Your task to perform on an android device: View the shopping cart on costco. Add macbook pro 13 inch to the cart on costco Image 0: 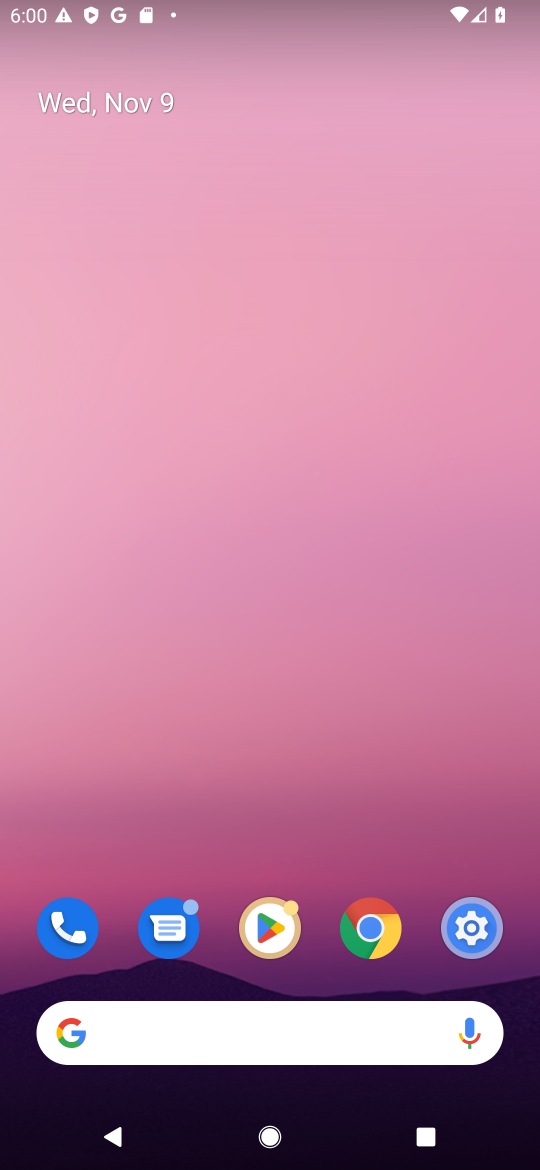
Step 0: click (365, 936)
Your task to perform on an android device: View the shopping cart on costco. Add macbook pro 13 inch to the cart on costco Image 1: 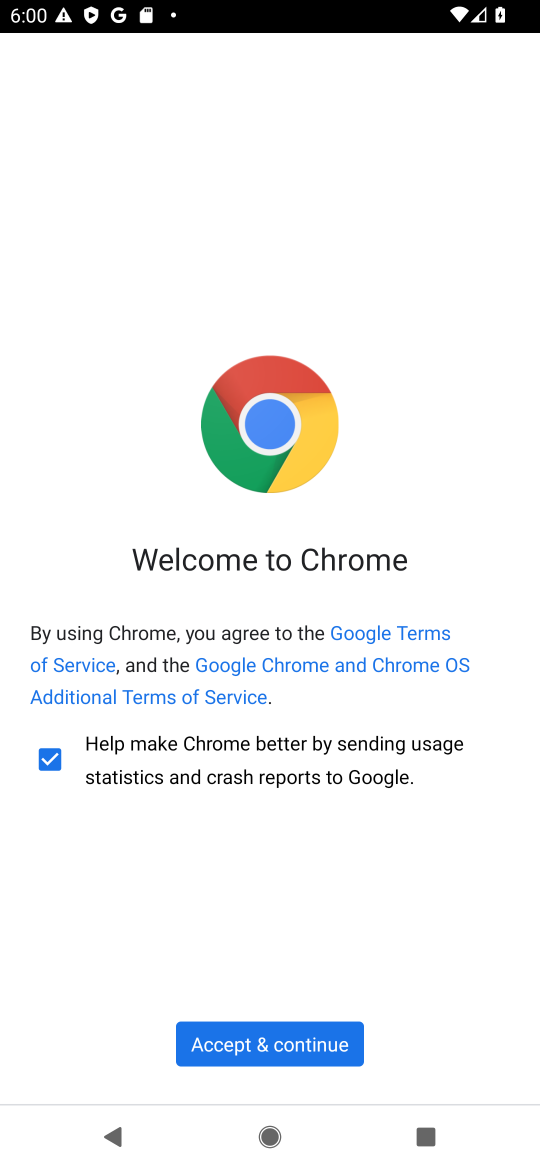
Step 1: click (281, 1060)
Your task to perform on an android device: View the shopping cart on costco. Add macbook pro 13 inch to the cart on costco Image 2: 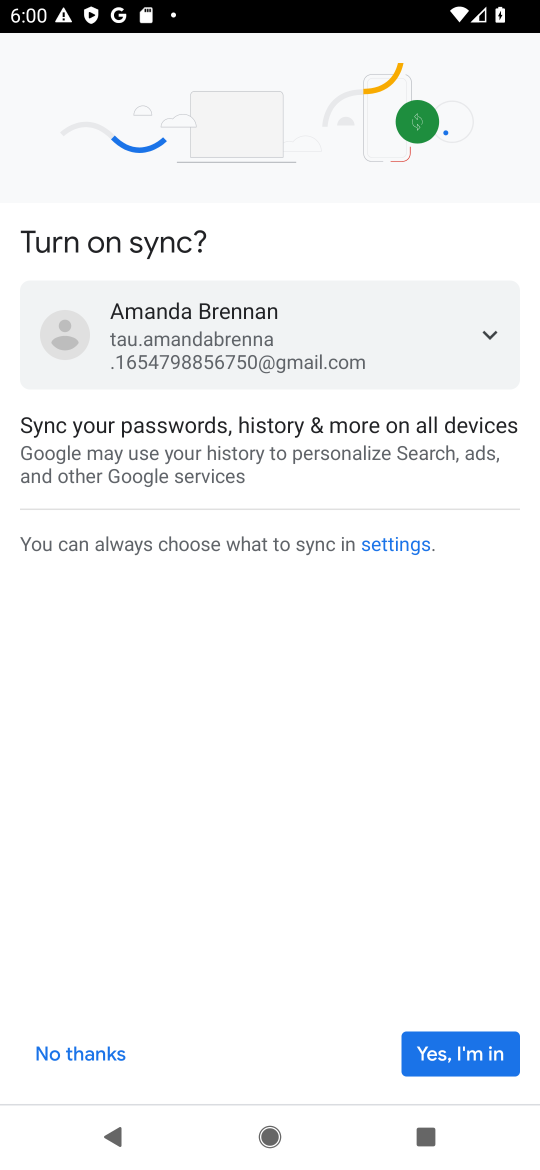
Step 2: click (433, 1043)
Your task to perform on an android device: View the shopping cart on costco. Add macbook pro 13 inch to the cart on costco Image 3: 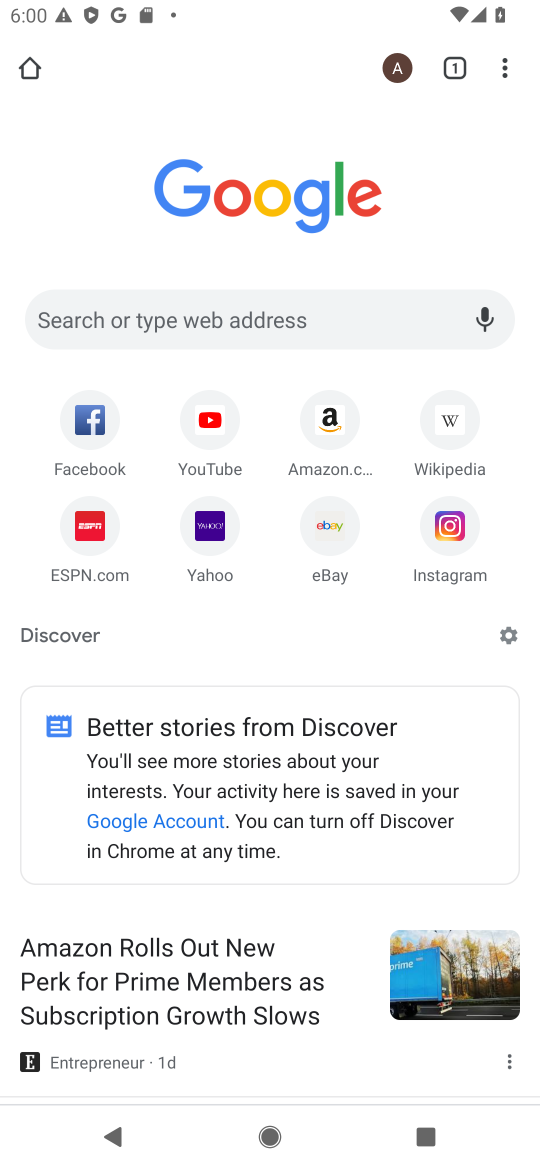
Step 3: click (127, 312)
Your task to perform on an android device: View the shopping cart on costco. Add macbook pro 13 inch to the cart on costco Image 4: 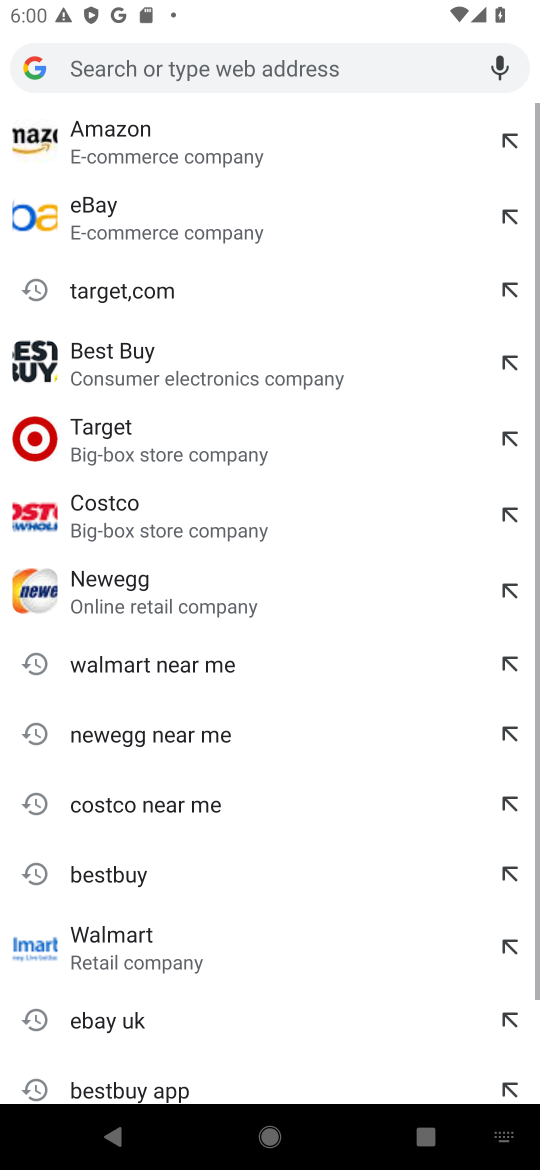
Step 4: click (117, 508)
Your task to perform on an android device: View the shopping cart on costco. Add macbook pro 13 inch to the cart on costco Image 5: 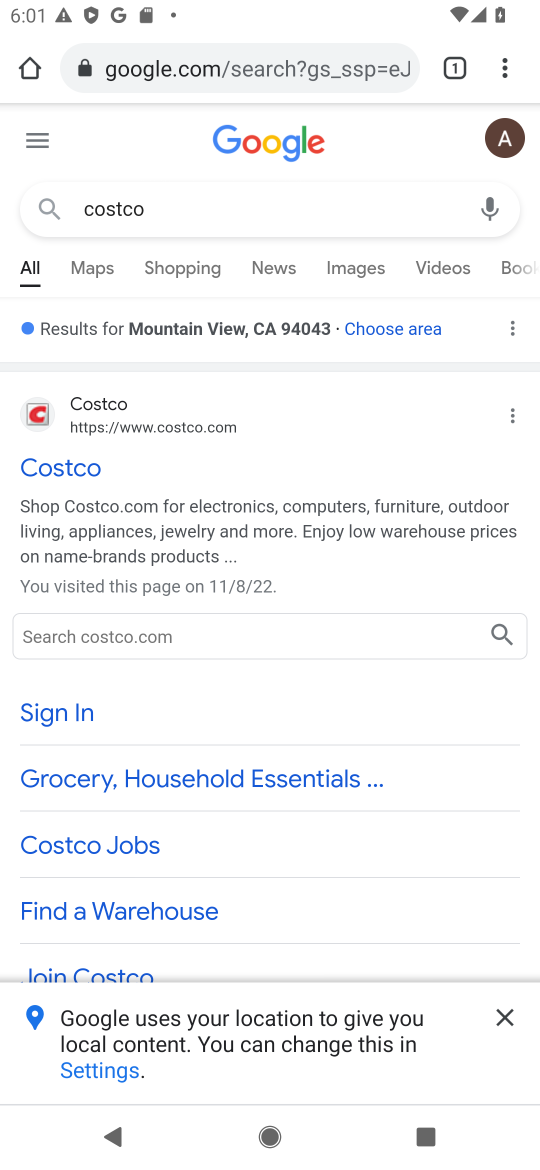
Step 5: click (156, 631)
Your task to perform on an android device: View the shopping cart on costco. Add macbook pro 13 inch to the cart on costco Image 6: 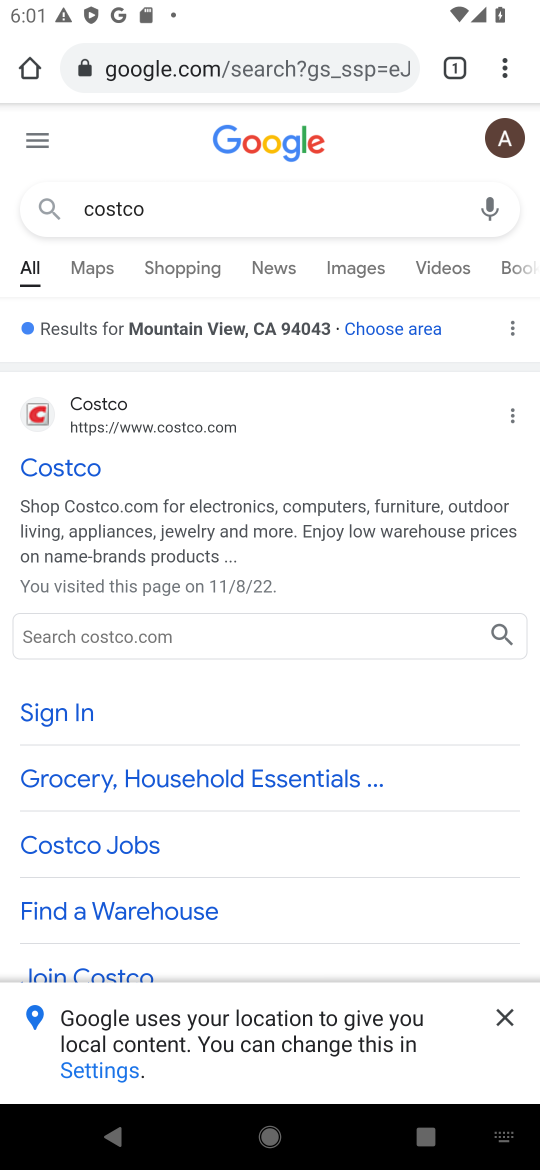
Step 6: type "macbook pro 13"
Your task to perform on an android device: View the shopping cart on costco. Add macbook pro 13 inch to the cart on costco Image 7: 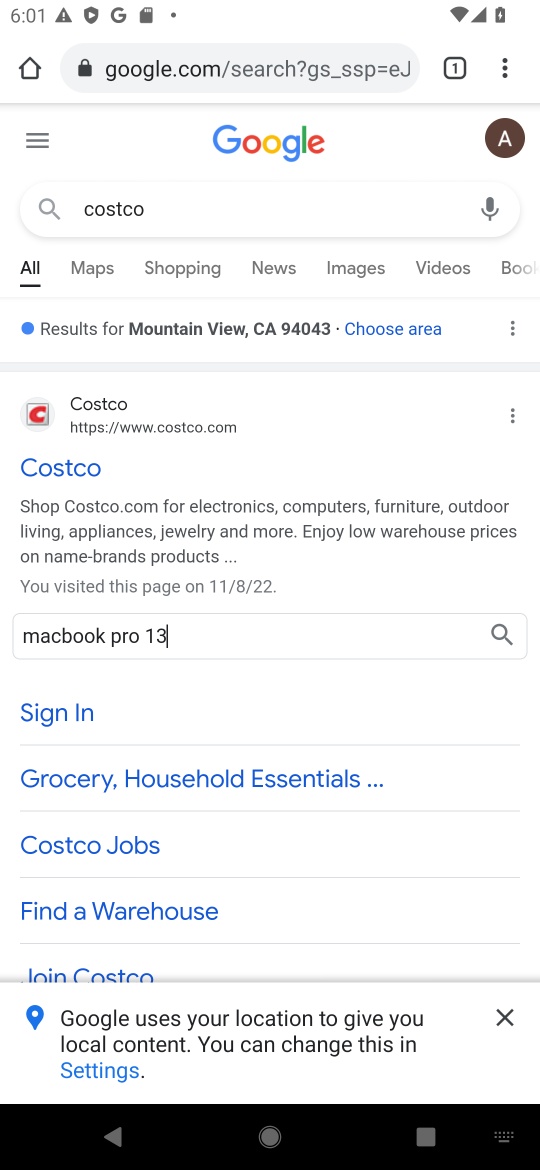
Step 7: click (503, 628)
Your task to perform on an android device: View the shopping cart on costco. Add macbook pro 13 inch to the cart on costco Image 8: 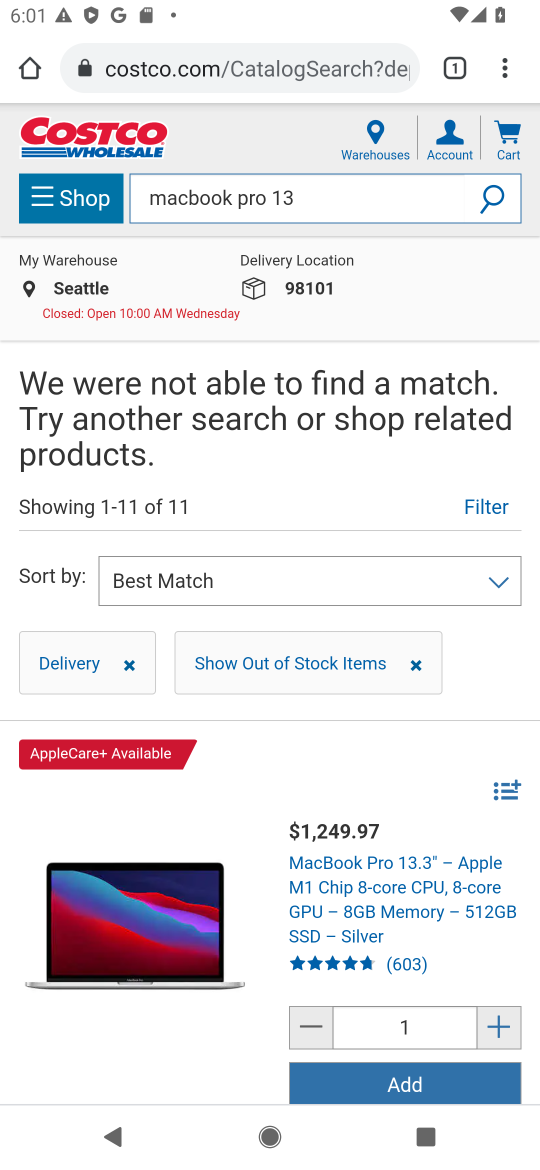
Step 8: click (429, 1085)
Your task to perform on an android device: View the shopping cart on costco. Add macbook pro 13 inch to the cart on costco Image 9: 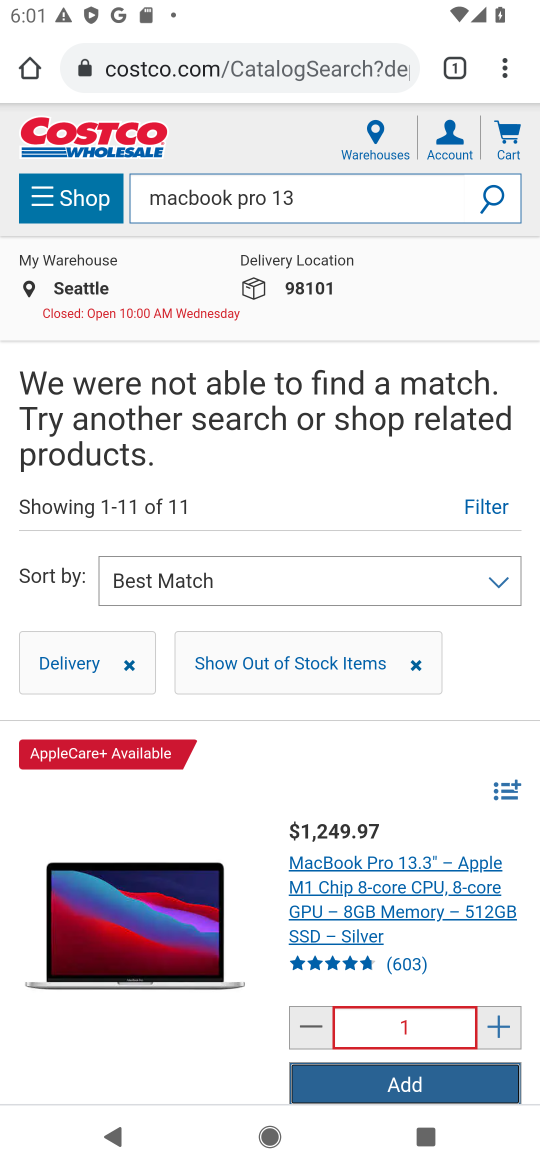
Step 9: click (429, 1085)
Your task to perform on an android device: View the shopping cart on costco. Add macbook pro 13 inch to the cart on costco Image 10: 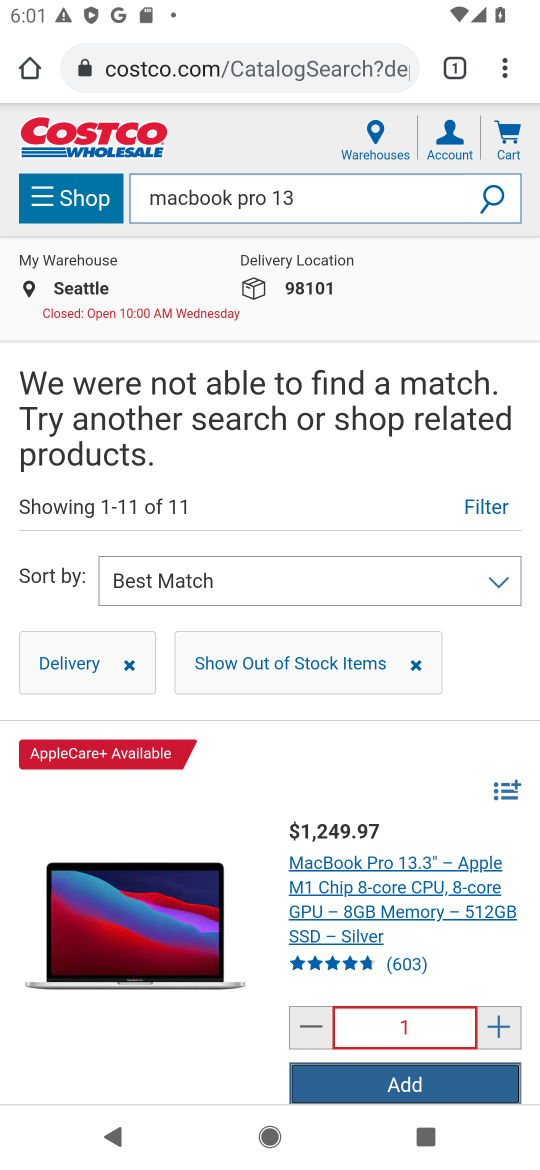
Step 10: click (498, 1023)
Your task to perform on an android device: View the shopping cart on costco. Add macbook pro 13 inch to the cart on costco Image 11: 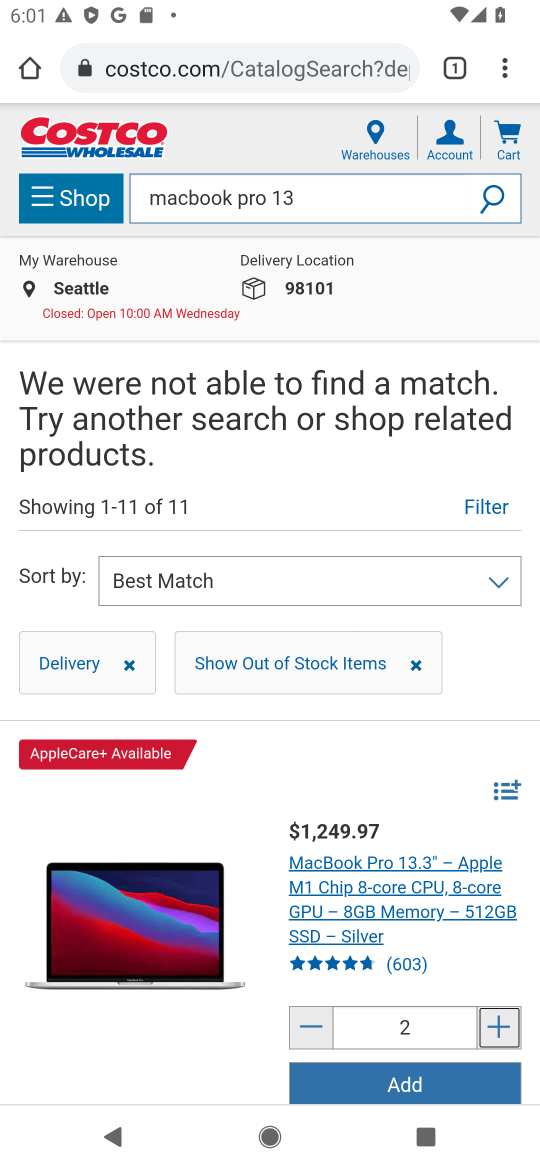
Step 11: click (434, 1089)
Your task to perform on an android device: View the shopping cart on costco. Add macbook pro 13 inch to the cart on costco Image 12: 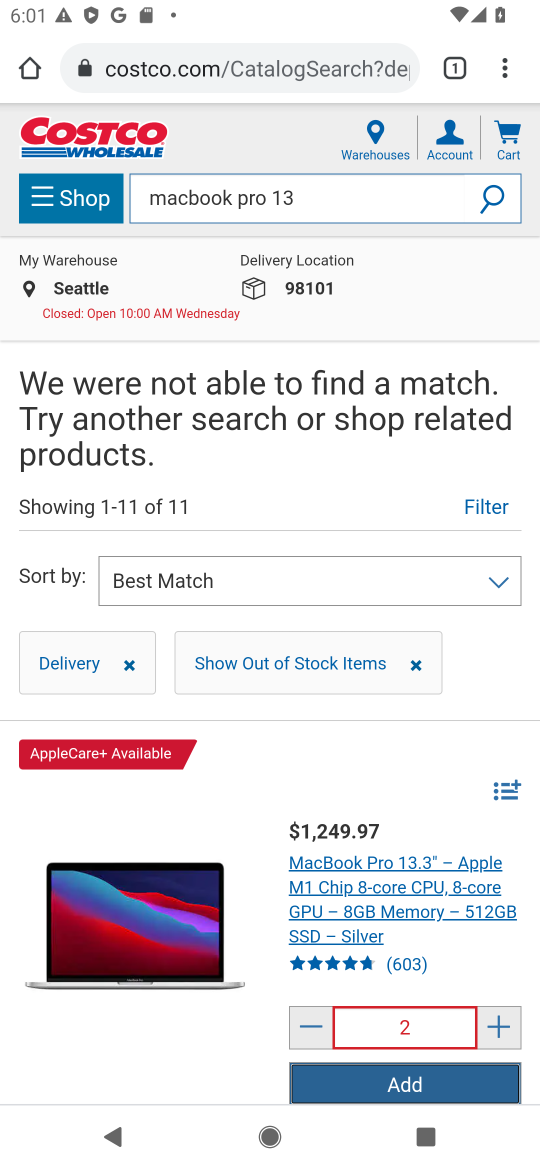
Step 12: drag from (276, 978) to (357, 637)
Your task to perform on an android device: View the shopping cart on costco. Add macbook pro 13 inch to the cart on costco Image 13: 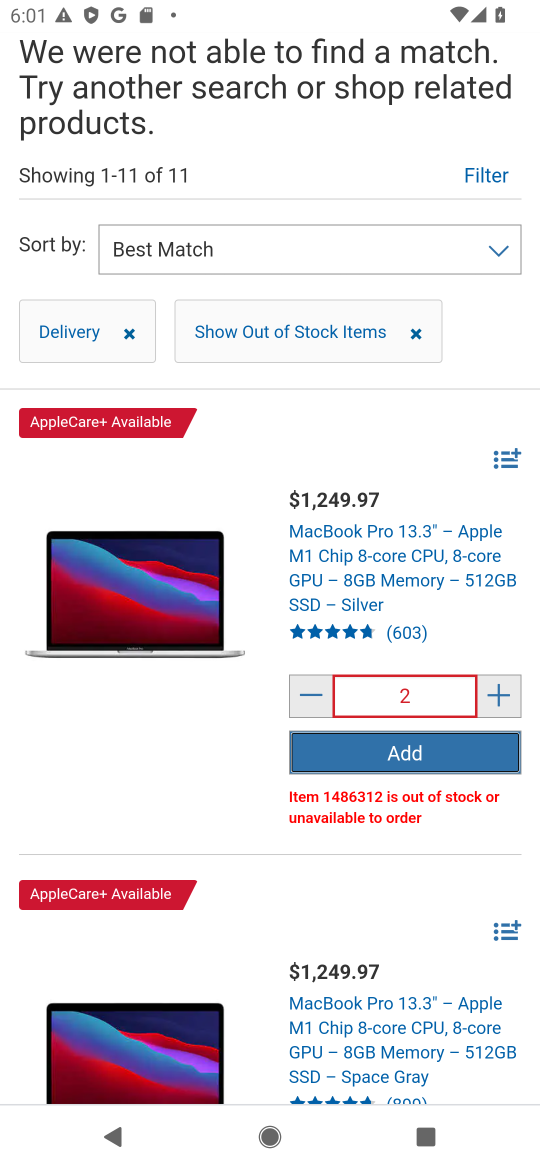
Step 13: drag from (392, 927) to (453, 520)
Your task to perform on an android device: View the shopping cart on costco. Add macbook pro 13 inch to the cart on costco Image 14: 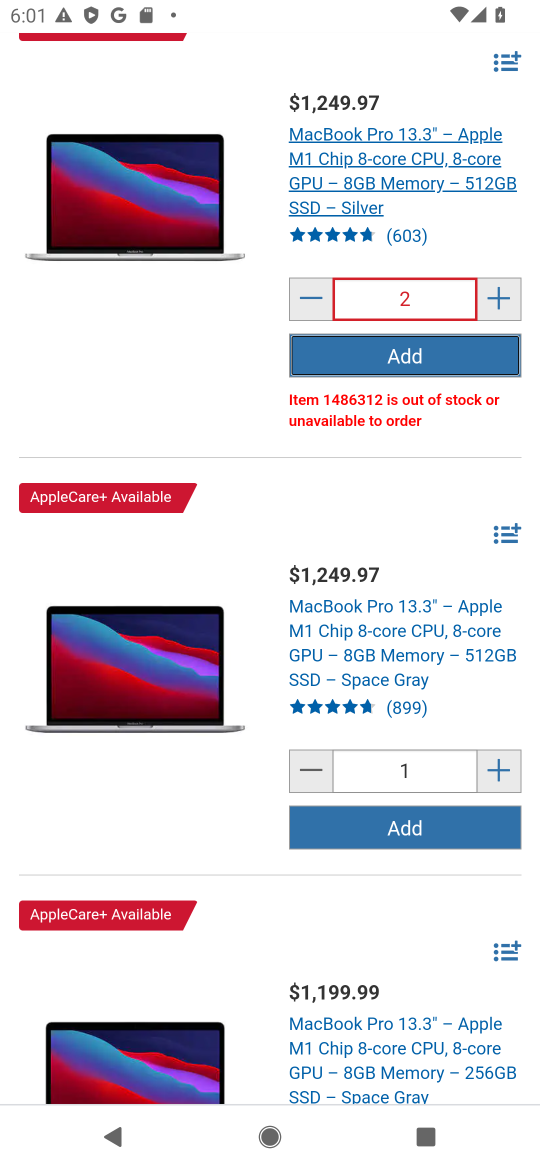
Step 14: click (434, 836)
Your task to perform on an android device: View the shopping cart on costco. Add macbook pro 13 inch to the cart on costco Image 15: 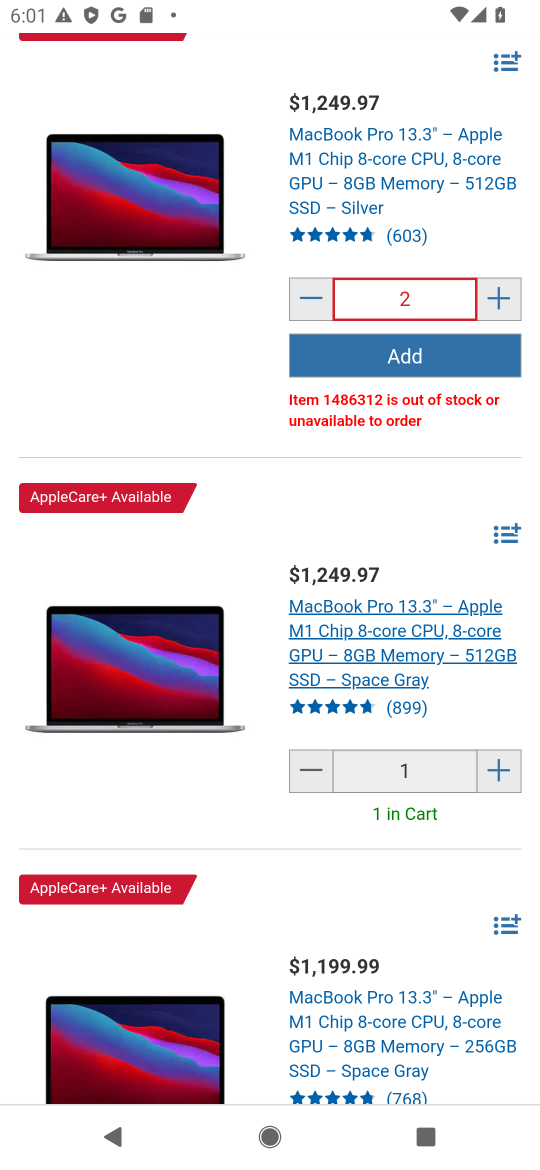
Step 15: task complete